Your task to perform on an android device: turn off sleep mode Image 0: 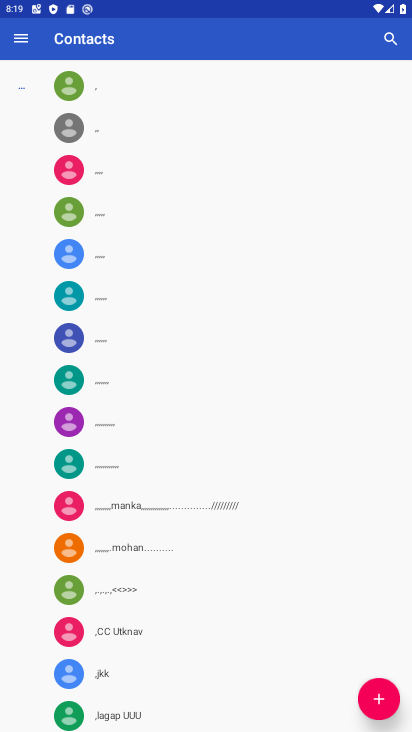
Step 0: press home button
Your task to perform on an android device: turn off sleep mode Image 1: 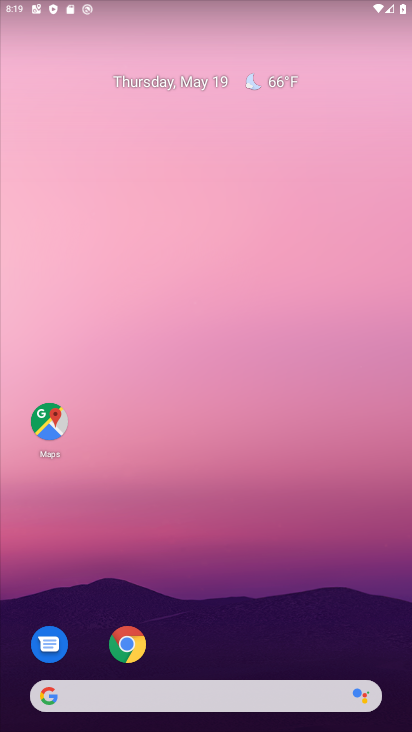
Step 1: drag from (351, 600) to (326, 190)
Your task to perform on an android device: turn off sleep mode Image 2: 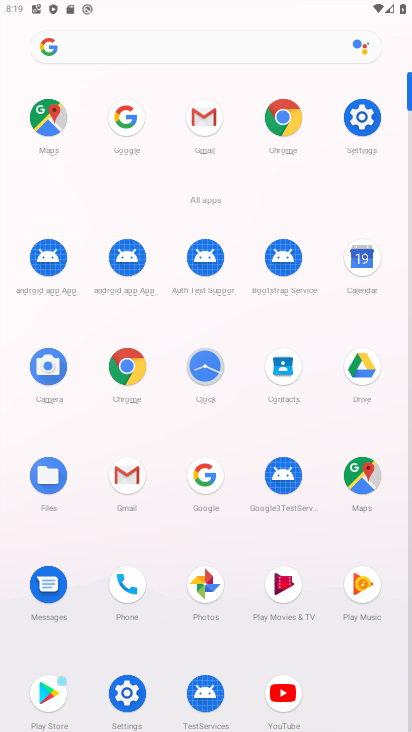
Step 2: click (116, 686)
Your task to perform on an android device: turn off sleep mode Image 3: 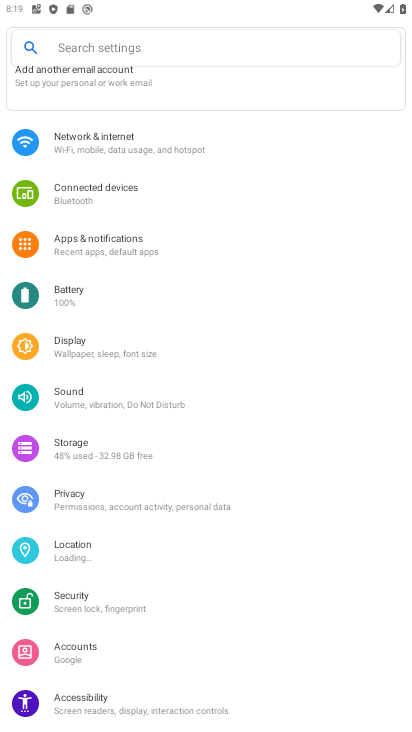
Step 3: click (144, 49)
Your task to perform on an android device: turn off sleep mode Image 4: 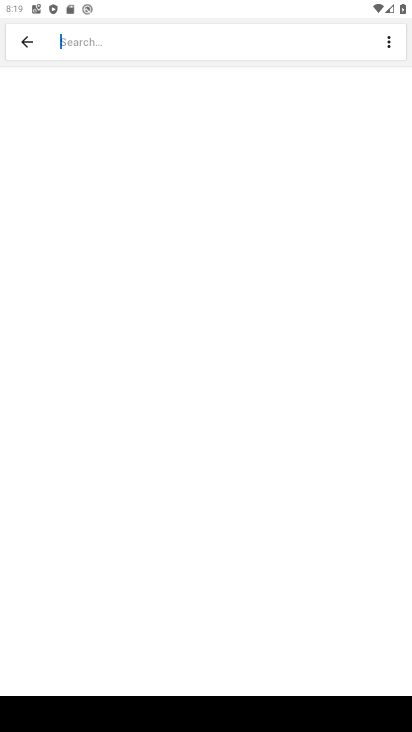
Step 4: type "sleep mode"
Your task to perform on an android device: turn off sleep mode Image 5: 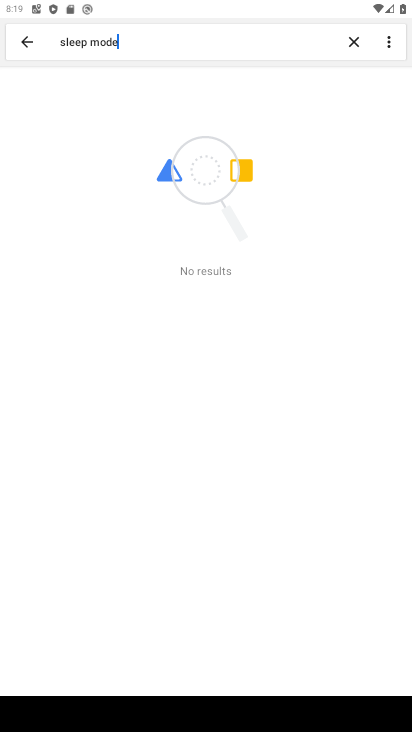
Step 5: task complete